Your task to perform on an android device: Open Youtube and go to the subscriptions tab Image 0: 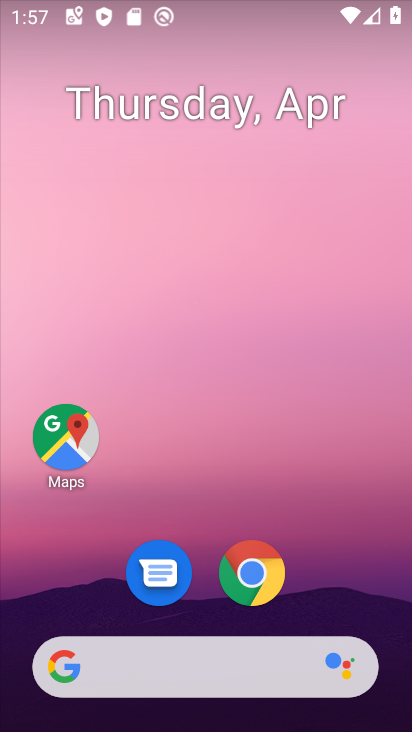
Step 0: drag from (351, 611) to (217, 40)
Your task to perform on an android device: Open Youtube and go to the subscriptions tab Image 1: 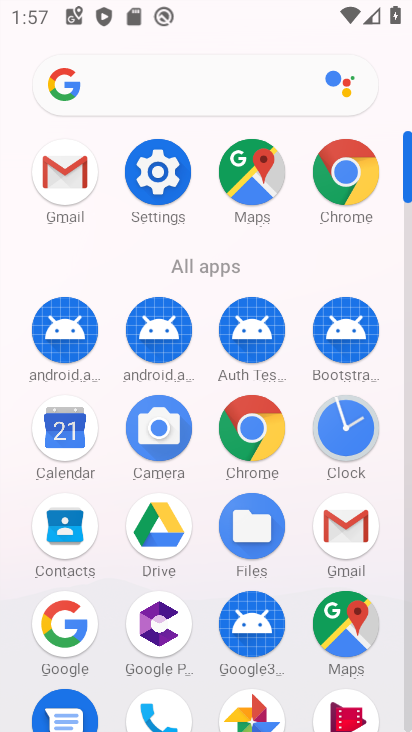
Step 1: click (409, 723)
Your task to perform on an android device: Open Youtube and go to the subscriptions tab Image 2: 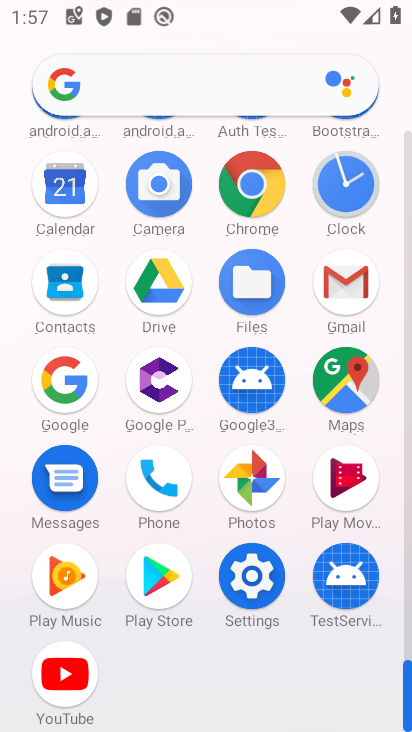
Step 2: click (67, 675)
Your task to perform on an android device: Open Youtube and go to the subscriptions tab Image 3: 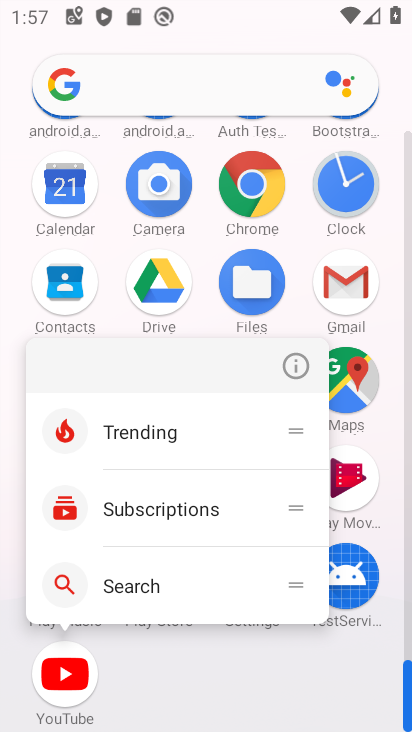
Step 3: click (67, 675)
Your task to perform on an android device: Open Youtube and go to the subscriptions tab Image 4: 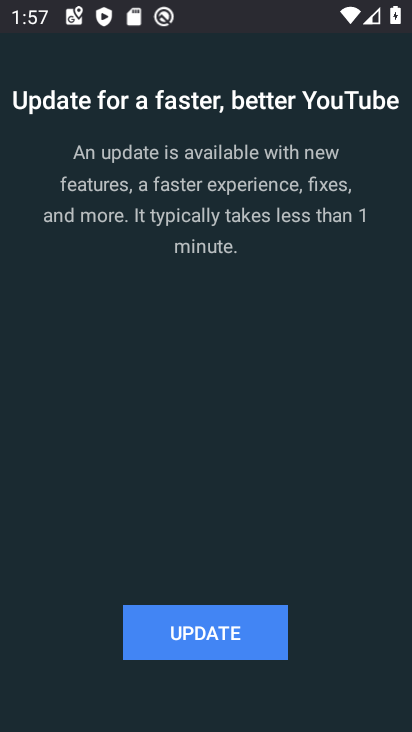
Step 4: click (180, 646)
Your task to perform on an android device: Open Youtube and go to the subscriptions tab Image 5: 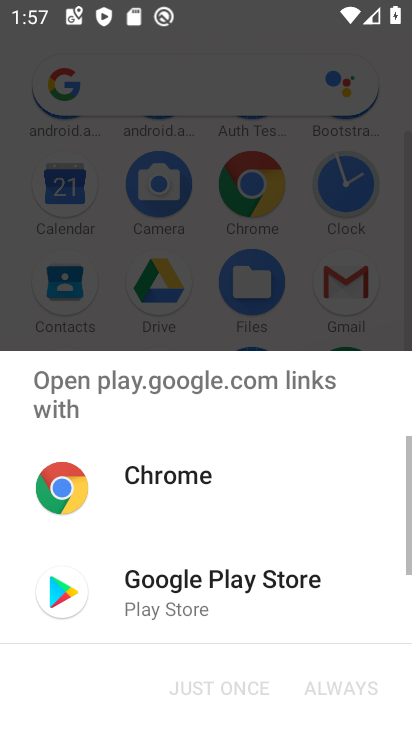
Step 5: click (137, 583)
Your task to perform on an android device: Open Youtube and go to the subscriptions tab Image 6: 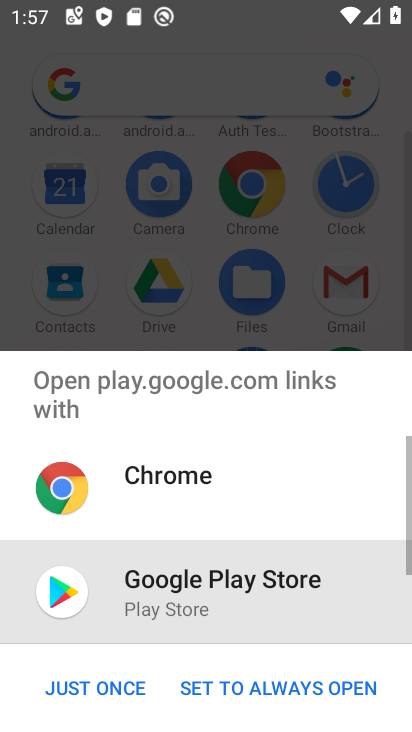
Step 6: click (95, 701)
Your task to perform on an android device: Open Youtube and go to the subscriptions tab Image 7: 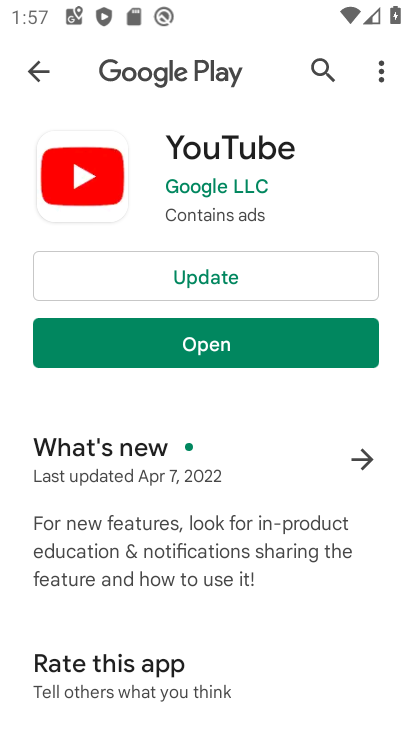
Step 7: click (233, 274)
Your task to perform on an android device: Open Youtube and go to the subscriptions tab Image 8: 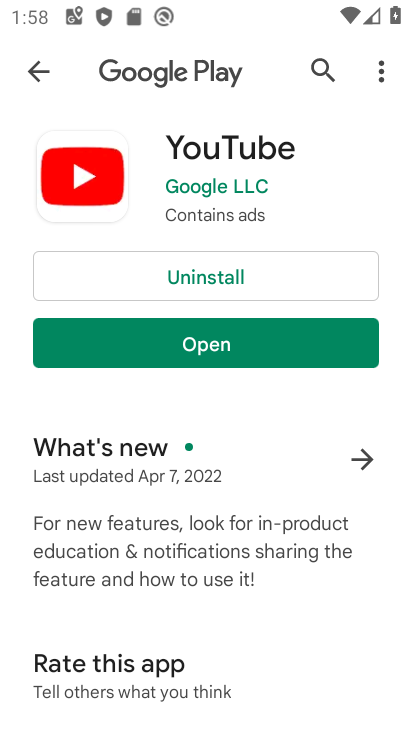
Step 8: click (223, 331)
Your task to perform on an android device: Open Youtube and go to the subscriptions tab Image 9: 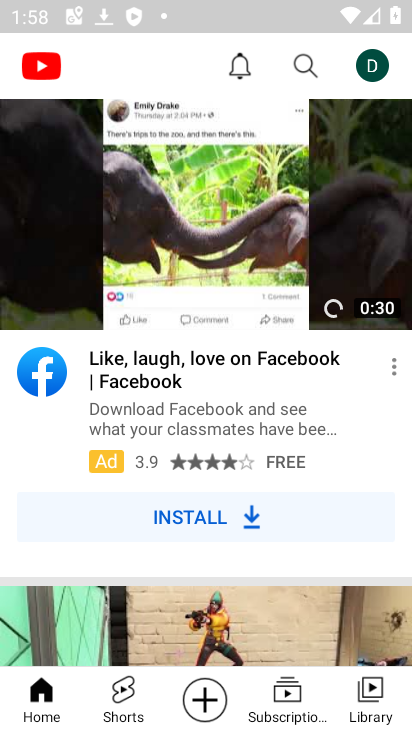
Step 9: click (291, 699)
Your task to perform on an android device: Open Youtube and go to the subscriptions tab Image 10: 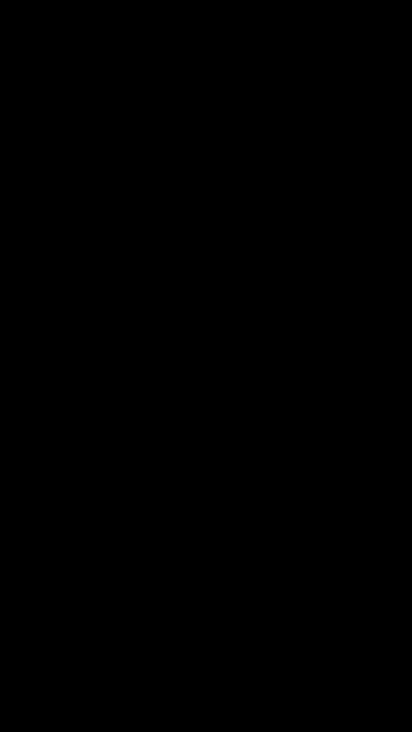
Step 10: task complete